Your task to perform on an android device: Open the calendar app, open the side menu, and click the "Day" option Image 0: 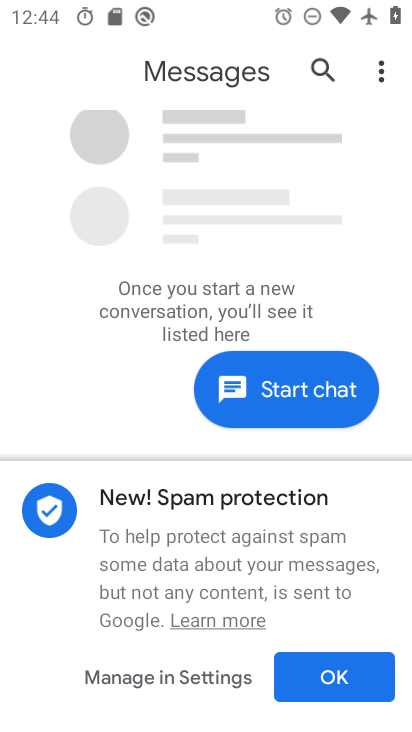
Step 0: press home button
Your task to perform on an android device: Open the calendar app, open the side menu, and click the "Day" option Image 1: 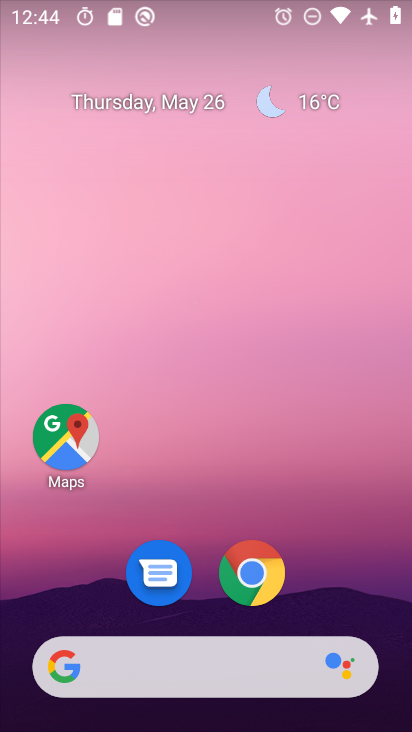
Step 1: drag from (328, 616) to (352, 27)
Your task to perform on an android device: Open the calendar app, open the side menu, and click the "Day" option Image 2: 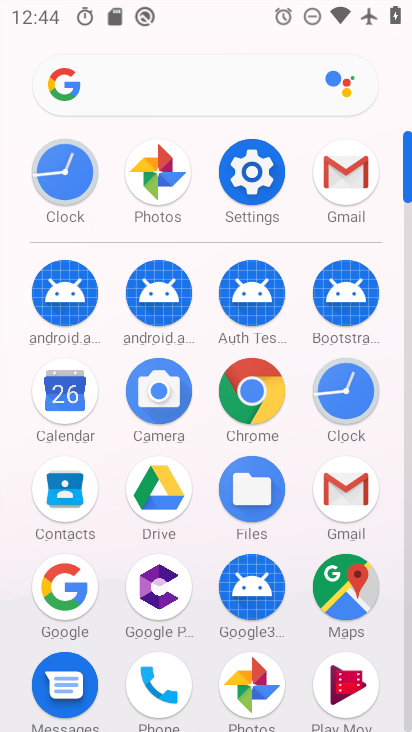
Step 2: click (54, 402)
Your task to perform on an android device: Open the calendar app, open the side menu, and click the "Day" option Image 3: 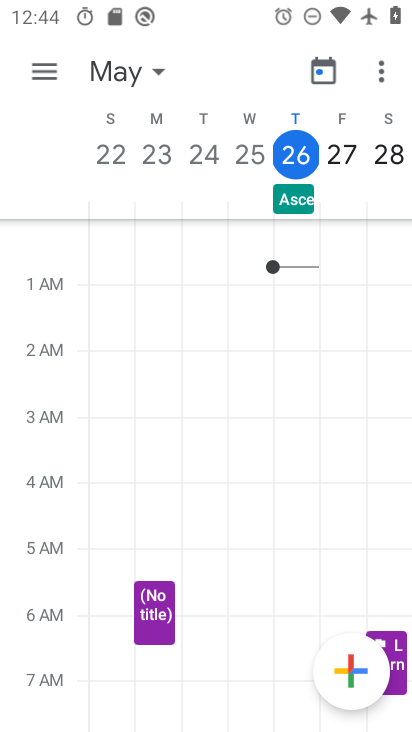
Step 3: click (25, 73)
Your task to perform on an android device: Open the calendar app, open the side menu, and click the "Day" option Image 4: 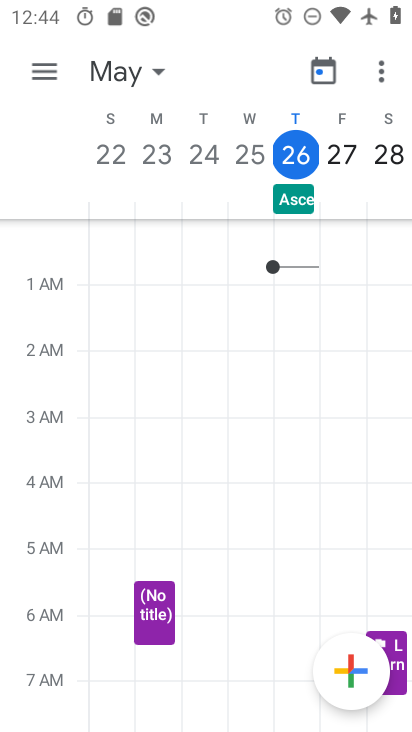
Step 4: click (43, 73)
Your task to perform on an android device: Open the calendar app, open the side menu, and click the "Day" option Image 5: 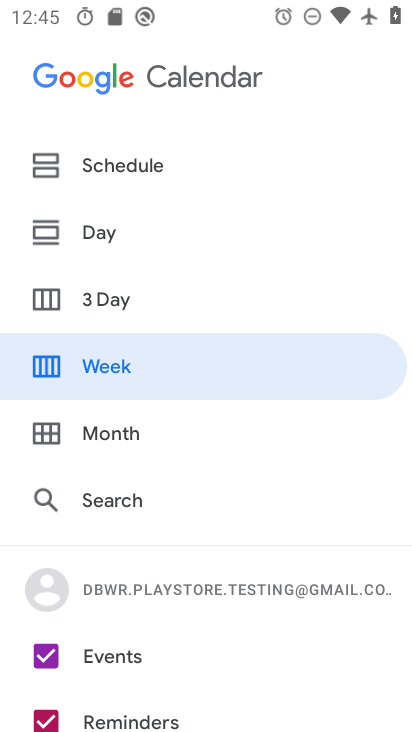
Step 5: click (92, 230)
Your task to perform on an android device: Open the calendar app, open the side menu, and click the "Day" option Image 6: 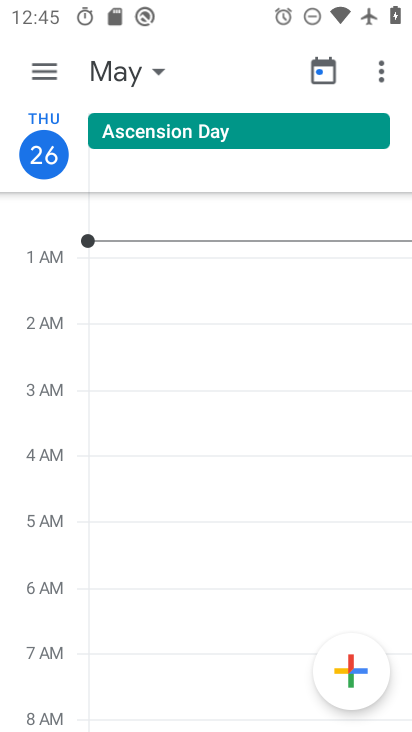
Step 6: task complete